Your task to perform on an android device: empty trash in the gmail app Image 0: 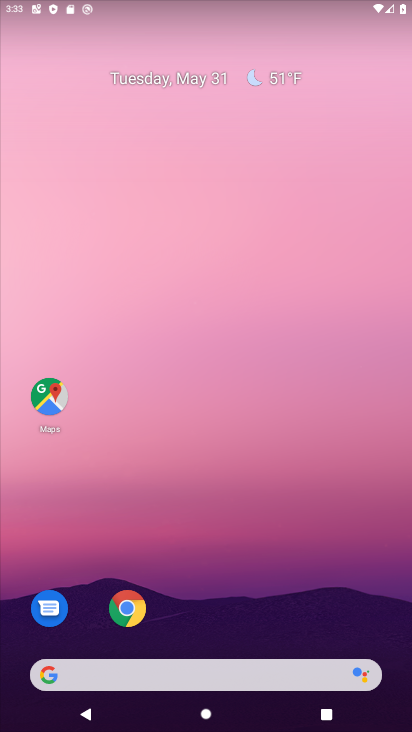
Step 0: drag from (165, 608) to (165, 263)
Your task to perform on an android device: empty trash in the gmail app Image 1: 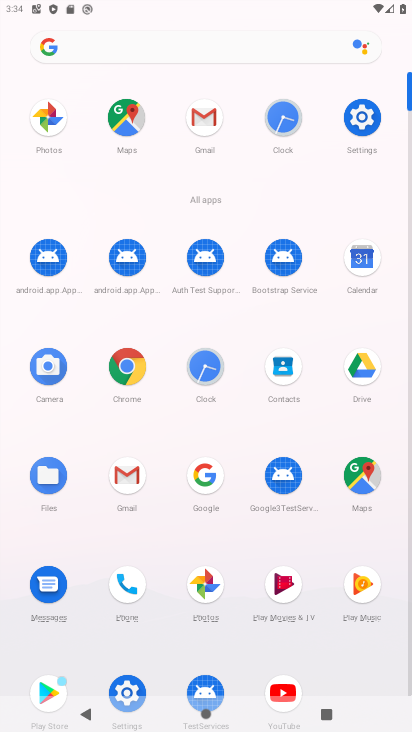
Step 1: click (209, 119)
Your task to perform on an android device: empty trash in the gmail app Image 2: 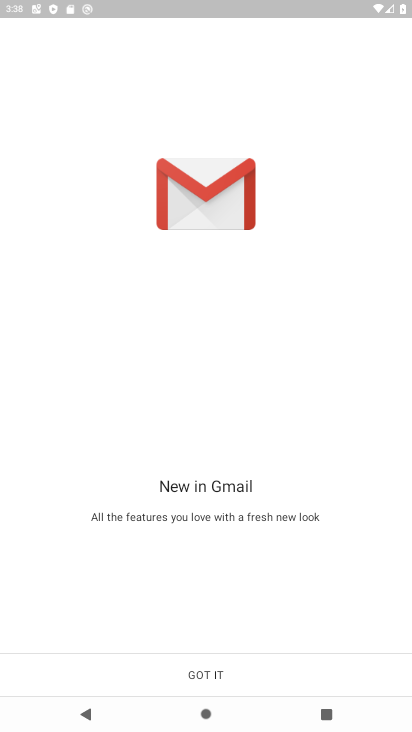
Step 2: click (205, 657)
Your task to perform on an android device: empty trash in the gmail app Image 3: 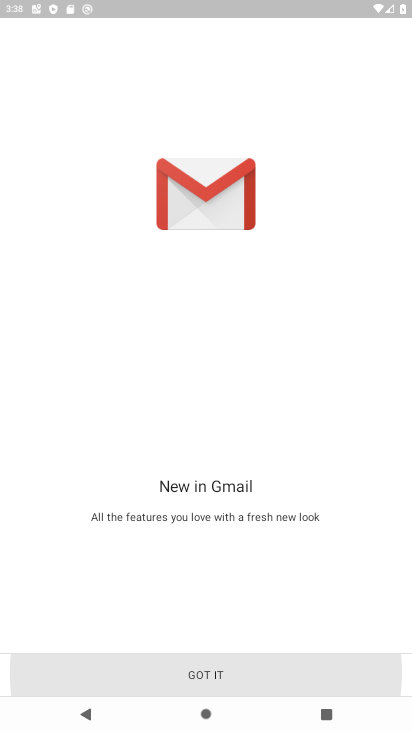
Step 3: click (214, 673)
Your task to perform on an android device: empty trash in the gmail app Image 4: 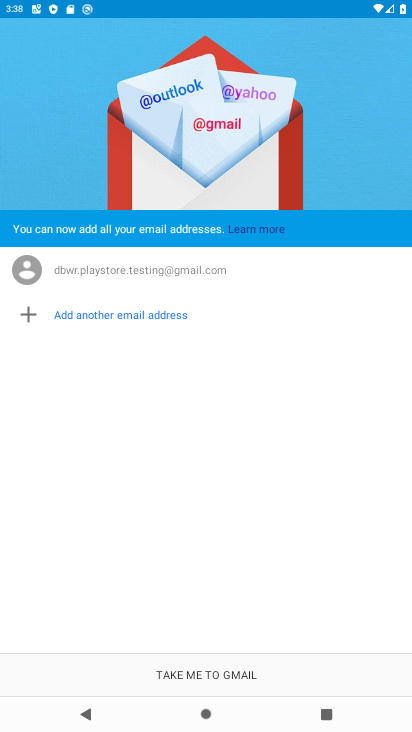
Step 4: click (220, 668)
Your task to perform on an android device: empty trash in the gmail app Image 5: 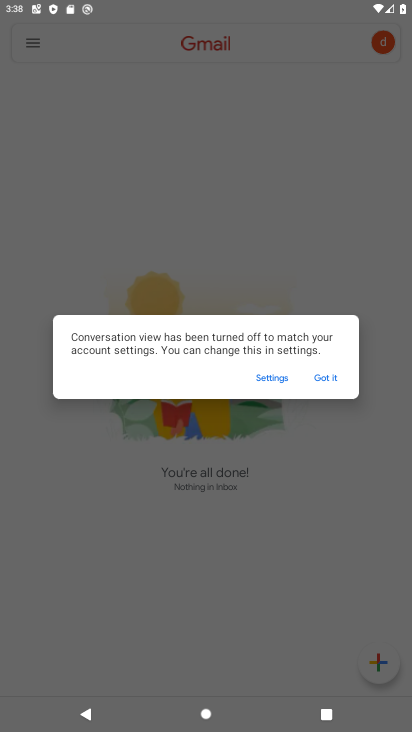
Step 5: click (326, 379)
Your task to perform on an android device: empty trash in the gmail app Image 6: 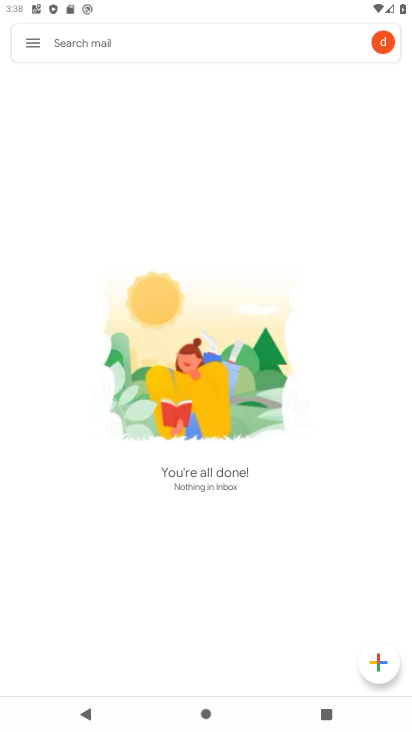
Step 6: click (33, 46)
Your task to perform on an android device: empty trash in the gmail app Image 7: 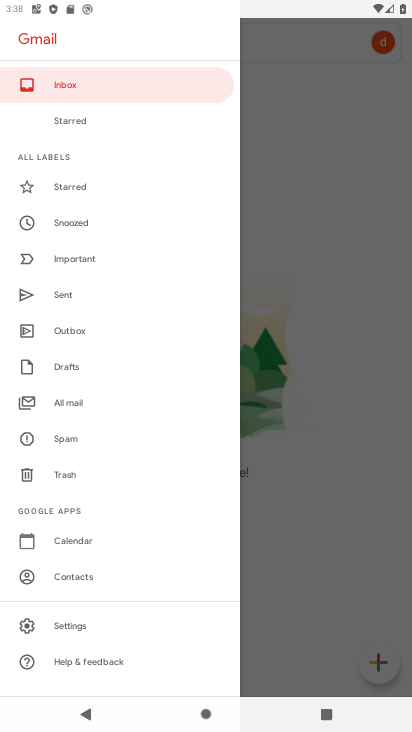
Step 7: click (71, 474)
Your task to perform on an android device: empty trash in the gmail app Image 8: 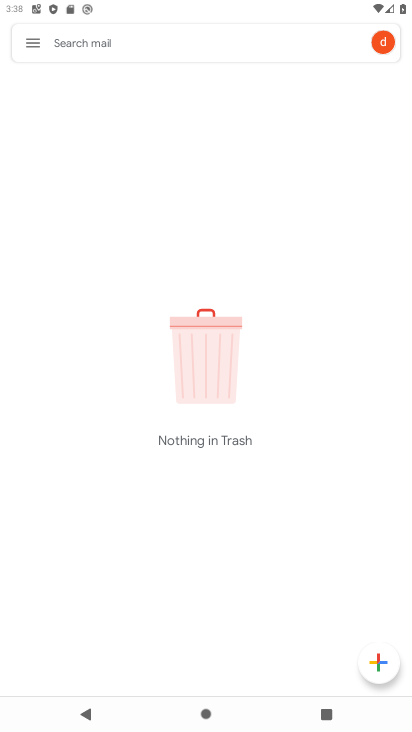
Step 8: task complete